Your task to perform on an android device: Open calendar and show me the fourth week of next month Image 0: 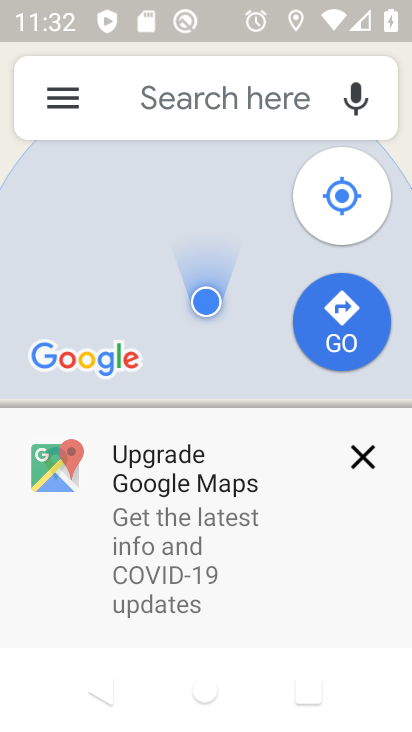
Step 0: press home button
Your task to perform on an android device: Open calendar and show me the fourth week of next month Image 1: 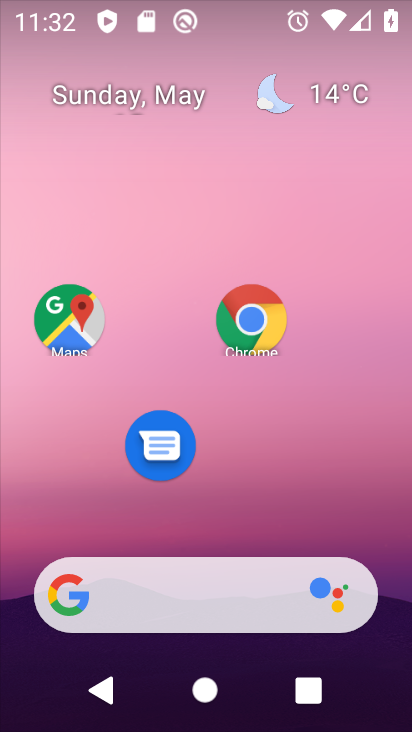
Step 1: drag from (145, 600) to (251, 181)
Your task to perform on an android device: Open calendar and show me the fourth week of next month Image 2: 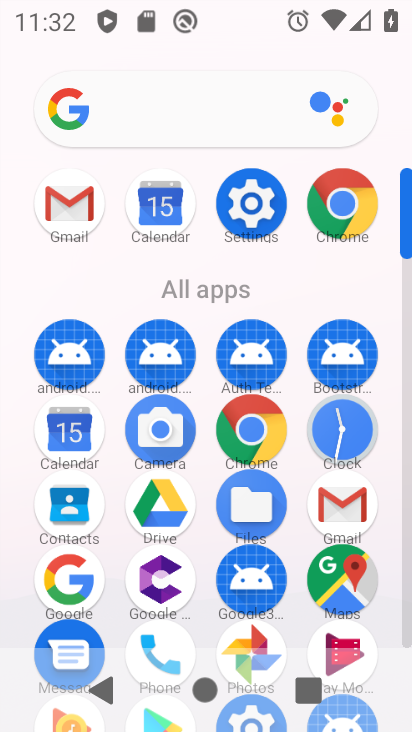
Step 2: click (160, 214)
Your task to perform on an android device: Open calendar and show me the fourth week of next month Image 3: 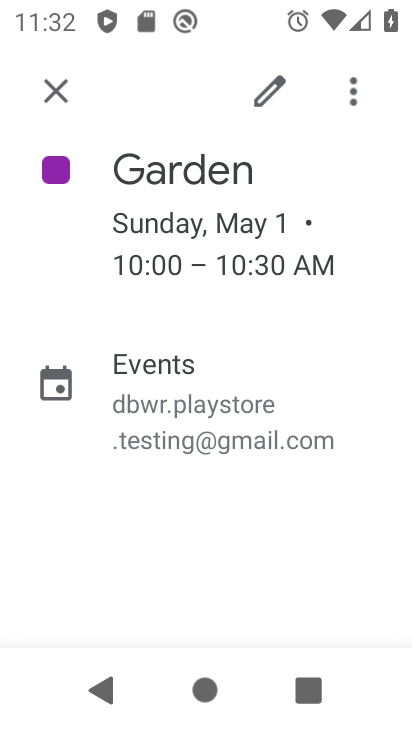
Step 3: click (57, 84)
Your task to perform on an android device: Open calendar and show me the fourth week of next month Image 4: 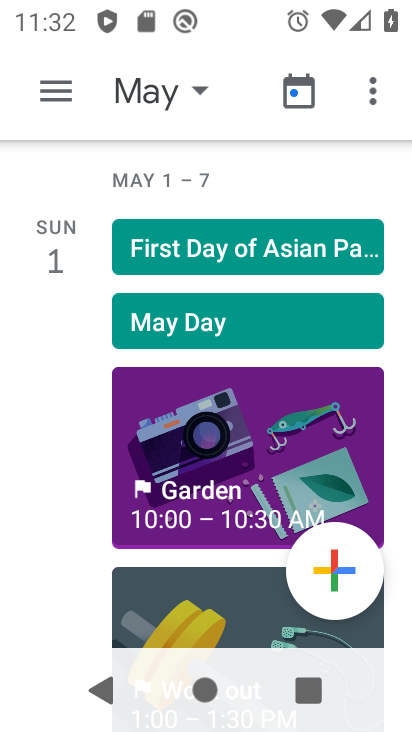
Step 4: click (129, 97)
Your task to perform on an android device: Open calendar and show me the fourth week of next month Image 5: 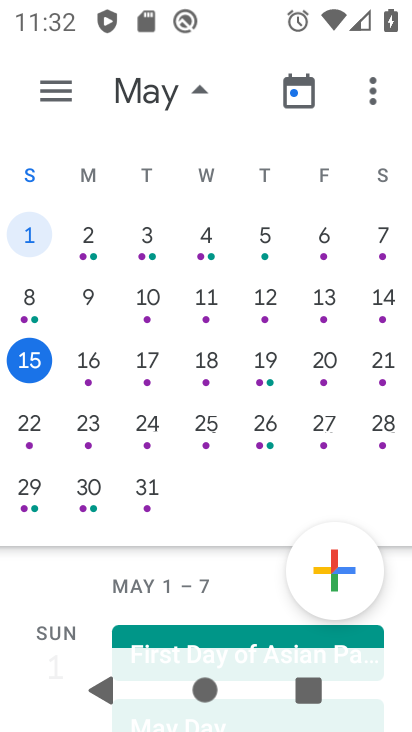
Step 5: drag from (366, 347) to (38, 324)
Your task to perform on an android device: Open calendar and show me the fourth week of next month Image 6: 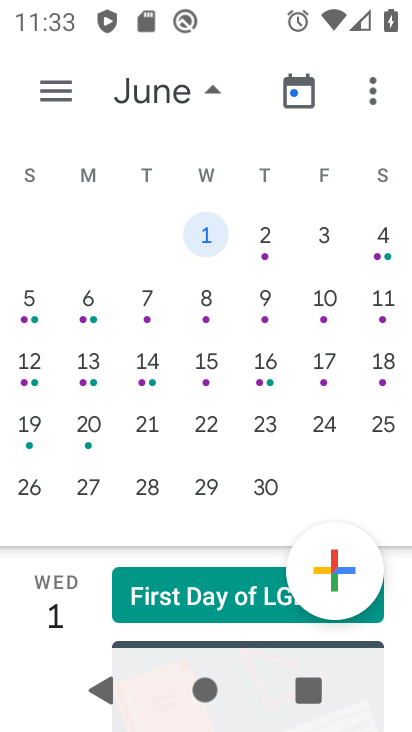
Step 6: click (39, 426)
Your task to perform on an android device: Open calendar and show me the fourth week of next month Image 7: 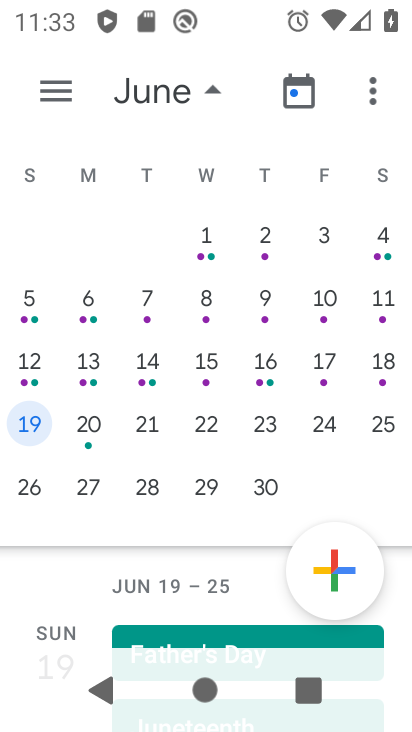
Step 7: click (73, 90)
Your task to perform on an android device: Open calendar and show me the fourth week of next month Image 8: 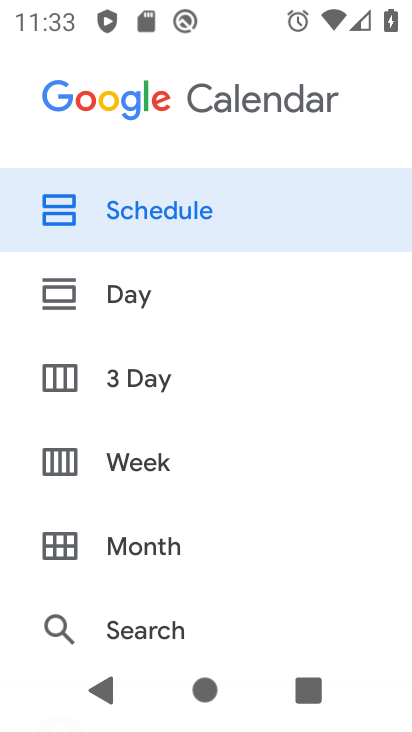
Step 8: click (154, 462)
Your task to perform on an android device: Open calendar and show me the fourth week of next month Image 9: 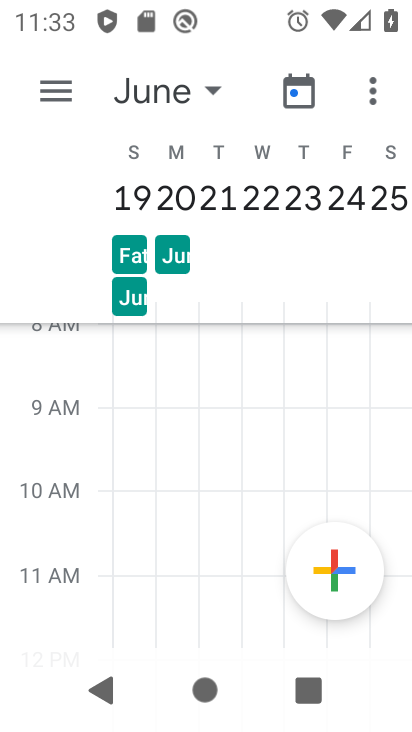
Step 9: task complete